Your task to perform on an android device: turn pop-ups off in chrome Image 0: 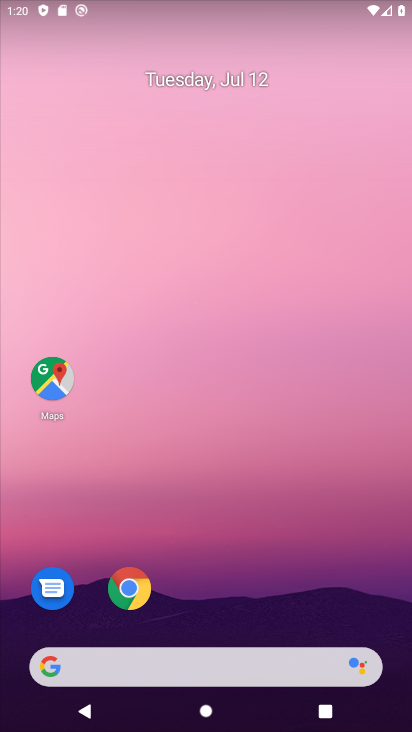
Step 0: drag from (181, 558) to (257, 44)
Your task to perform on an android device: turn pop-ups off in chrome Image 1: 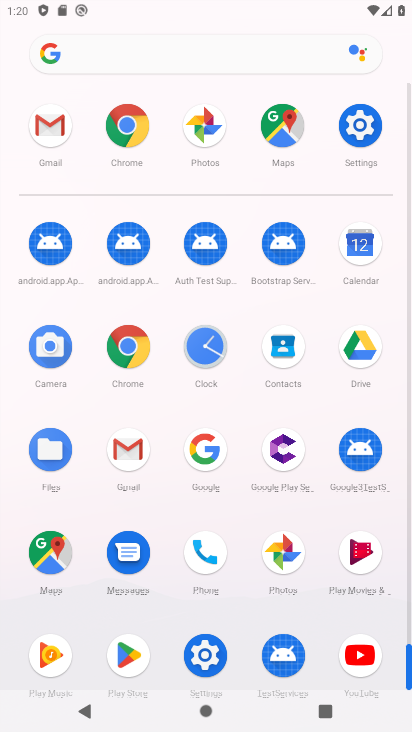
Step 1: click (122, 346)
Your task to perform on an android device: turn pop-ups off in chrome Image 2: 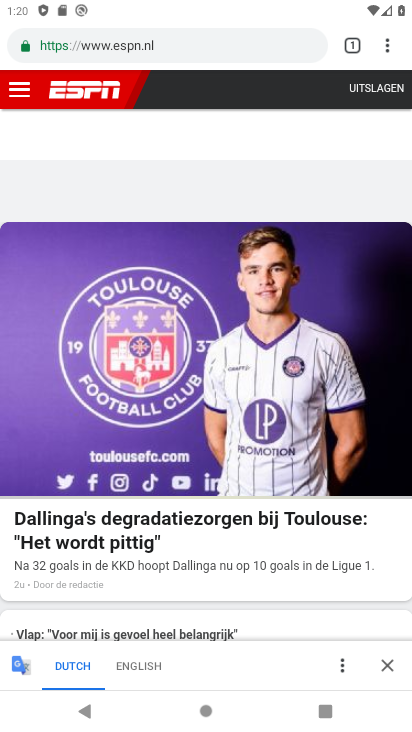
Step 2: click (395, 43)
Your task to perform on an android device: turn pop-ups off in chrome Image 3: 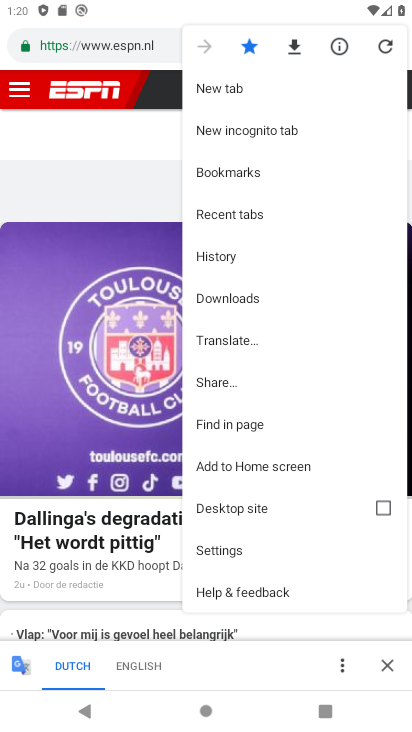
Step 3: drag from (251, 577) to (251, 242)
Your task to perform on an android device: turn pop-ups off in chrome Image 4: 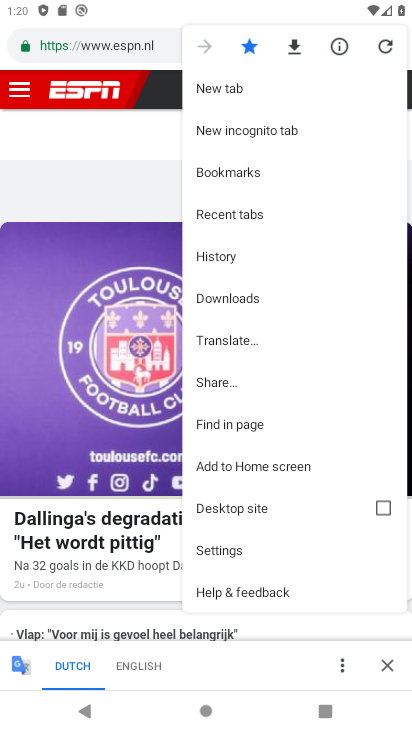
Step 4: click (229, 550)
Your task to perform on an android device: turn pop-ups off in chrome Image 5: 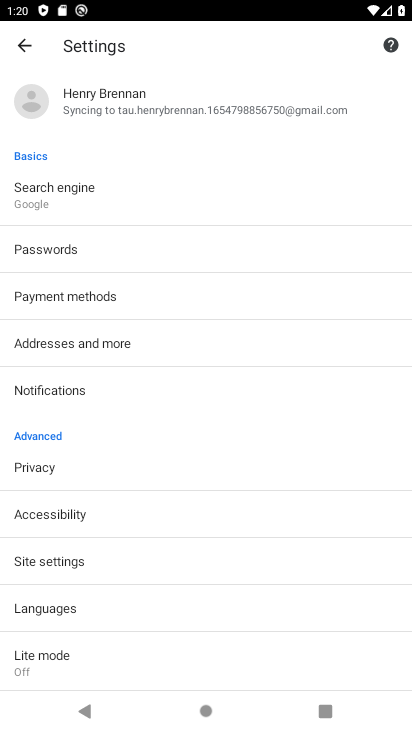
Step 5: drag from (146, 601) to (246, 252)
Your task to perform on an android device: turn pop-ups off in chrome Image 6: 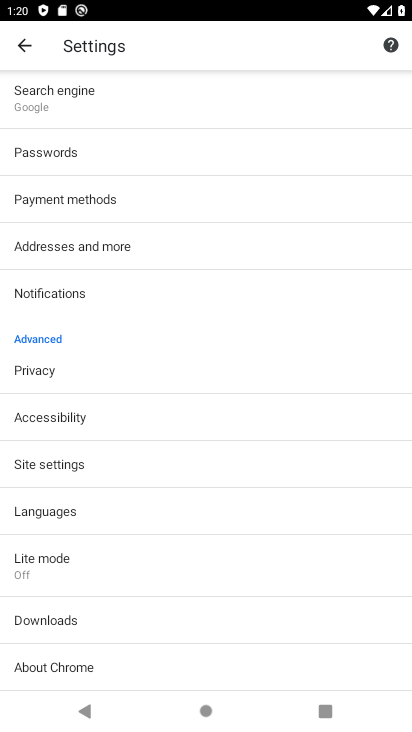
Step 6: drag from (186, 562) to (276, 158)
Your task to perform on an android device: turn pop-ups off in chrome Image 7: 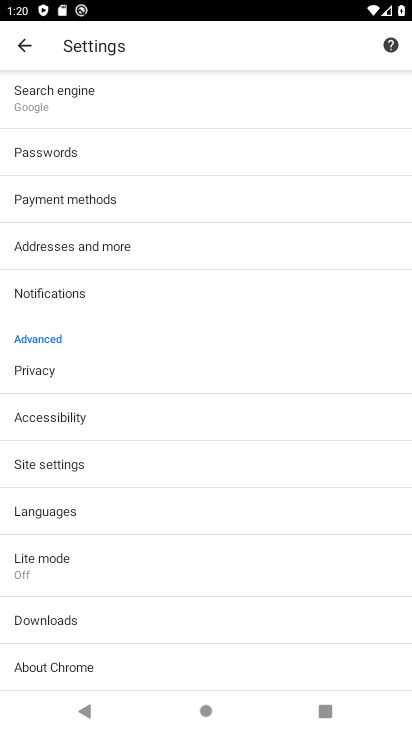
Step 7: drag from (167, 558) to (240, 263)
Your task to perform on an android device: turn pop-ups off in chrome Image 8: 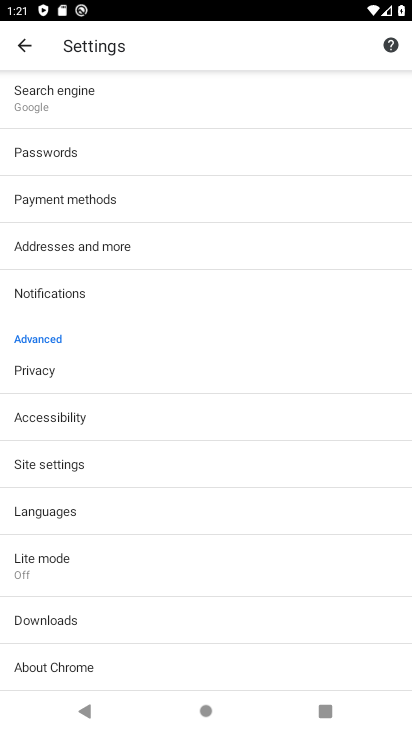
Step 8: click (95, 455)
Your task to perform on an android device: turn pop-ups off in chrome Image 9: 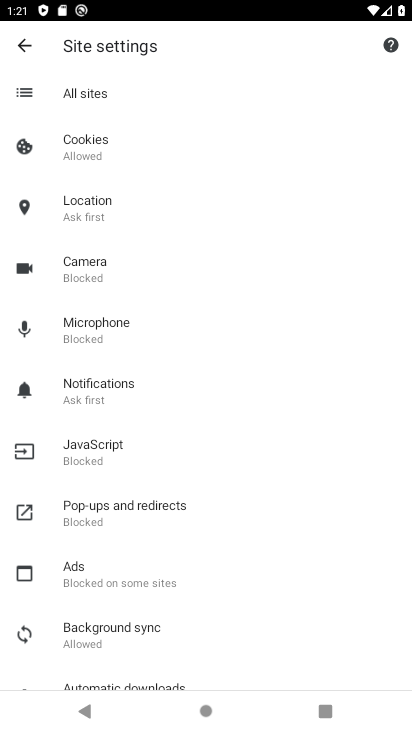
Step 9: click (134, 518)
Your task to perform on an android device: turn pop-ups off in chrome Image 10: 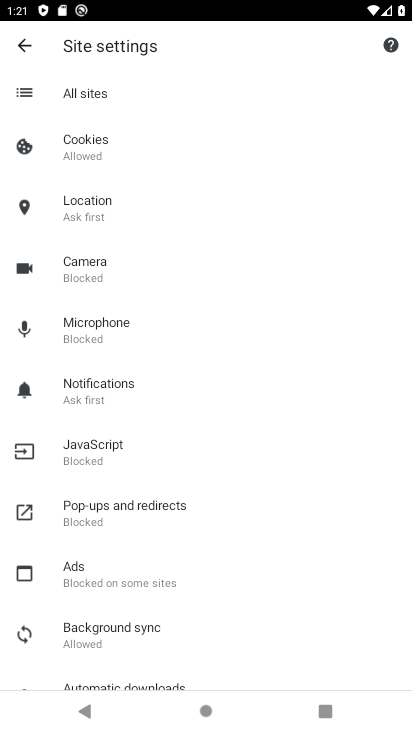
Step 10: click (134, 518)
Your task to perform on an android device: turn pop-ups off in chrome Image 11: 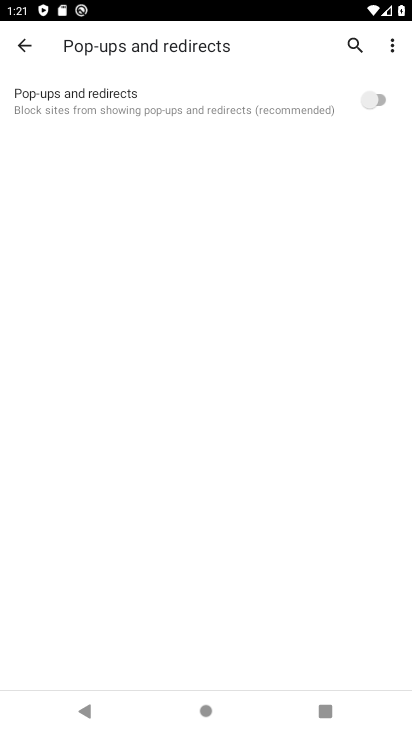
Step 11: task complete